Your task to perform on an android device: check data usage Image 0: 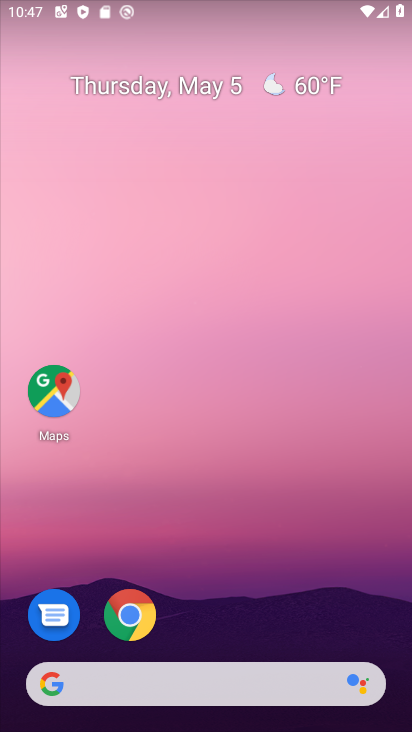
Step 0: drag from (227, 612) to (319, 162)
Your task to perform on an android device: check data usage Image 1: 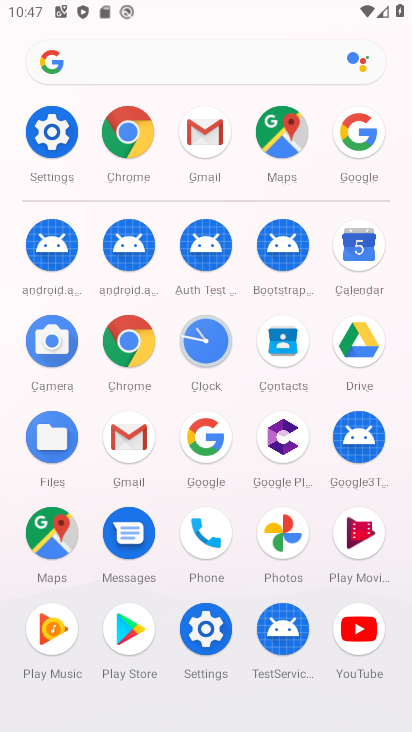
Step 1: click (42, 136)
Your task to perform on an android device: check data usage Image 2: 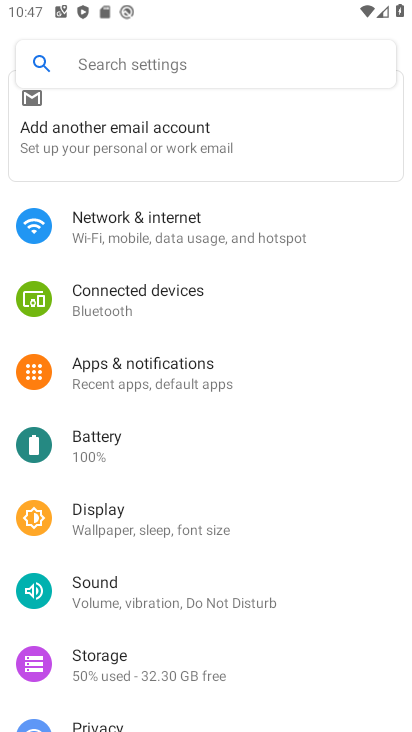
Step 2: click (147, 219)
Your task to perform on an android device: check data usage Image 3: 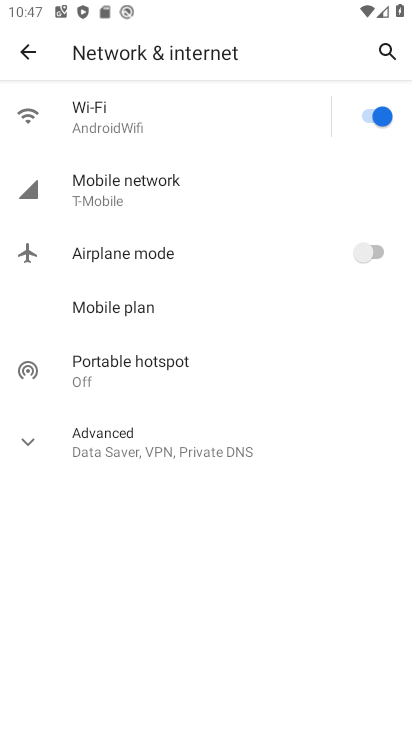
Step 3: click (132, 186)
Your task to perform on an android device: check data usage Image 4: 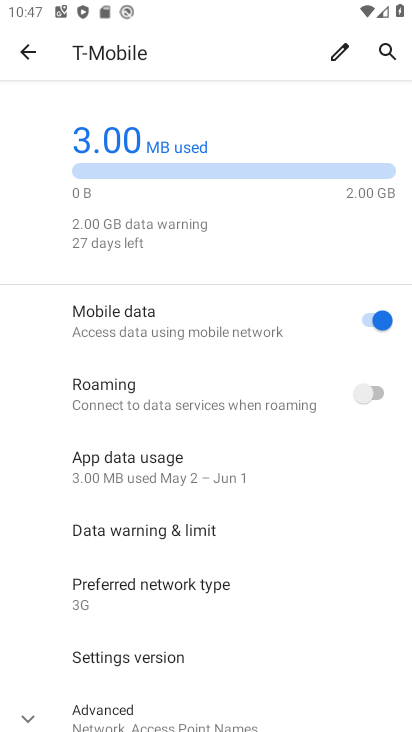
Step 4: task complete